Your task to perform on an android device: turn off smart reply in the gmail app Image 0: 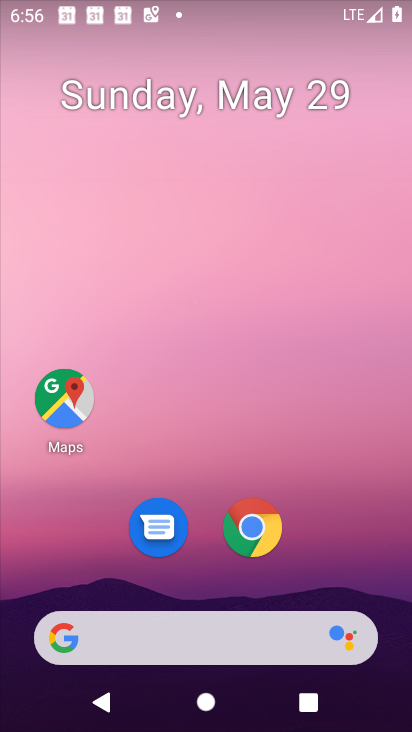
Step 0: drag from (374, 629) to (345, 61)
Your task to perform on an android device: turn off smart reply in the gmail app Image 1: 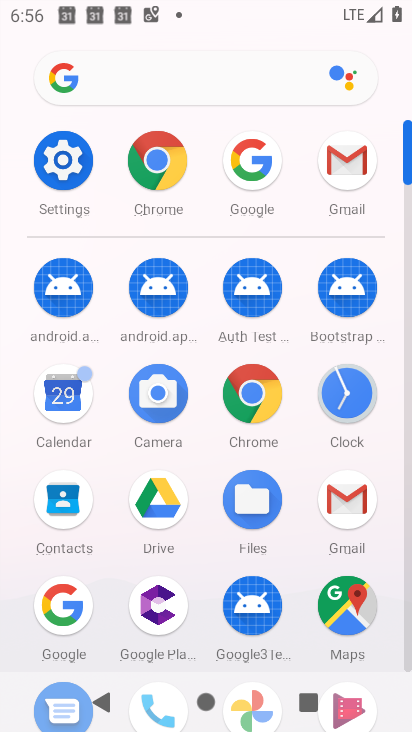
Step 1: click (330, 141)
Your task to perform on an android device: turn off smart reply in the gmail app Image 2: 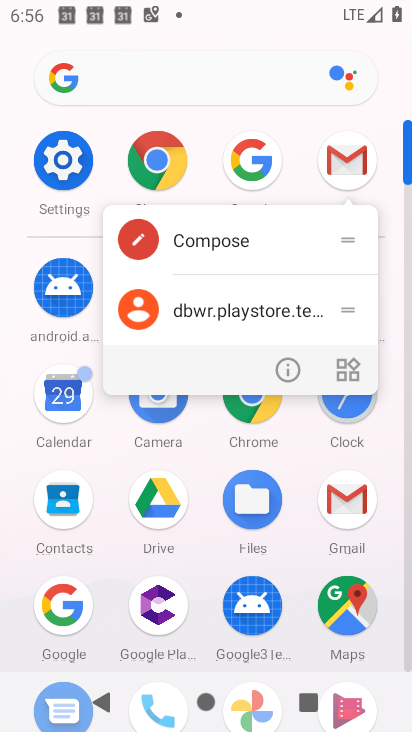
Step 2: click (330, 141)
Your task to perform on an android device: turn off smart reply in the gmail app Image 3: 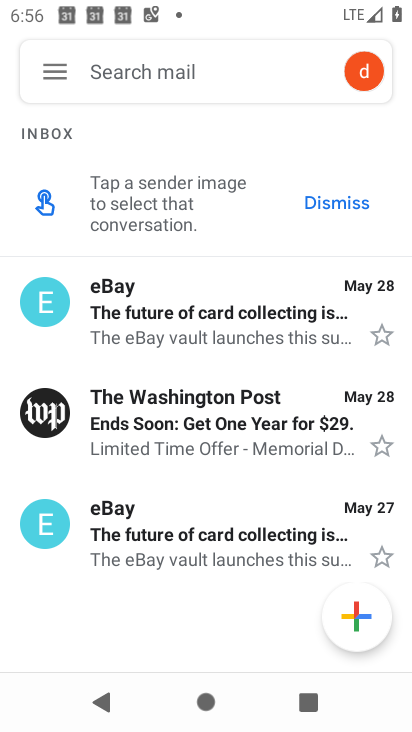
Step 3: click (64, 62)
Your task to perform on an android device: turn off smart reply in the gmail app Image 4: 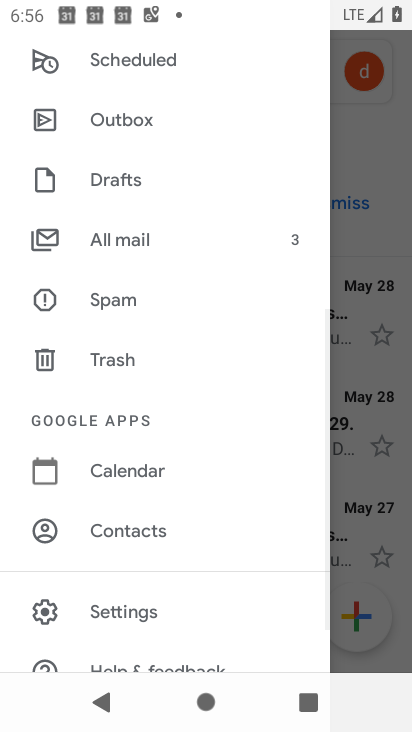
Step 4: click (137, 612)
Your task to perform on an android device: turn off smart reply in the gmail app Image 5: 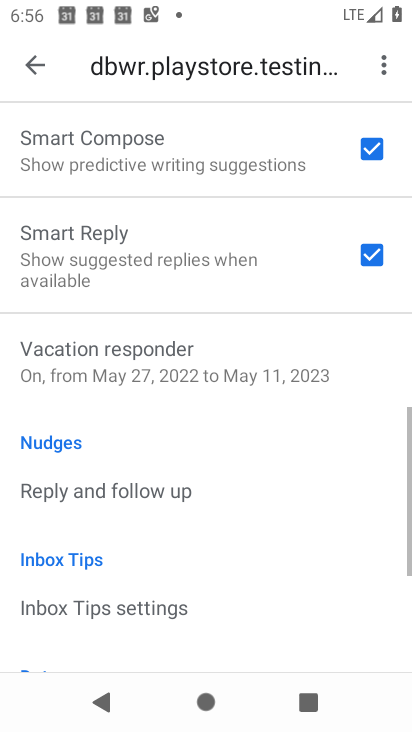
Step 5: drag from (137, 612) to (150, 43)
Your task to perform on an android device: turn off smart reply in the gmail app Image 6: 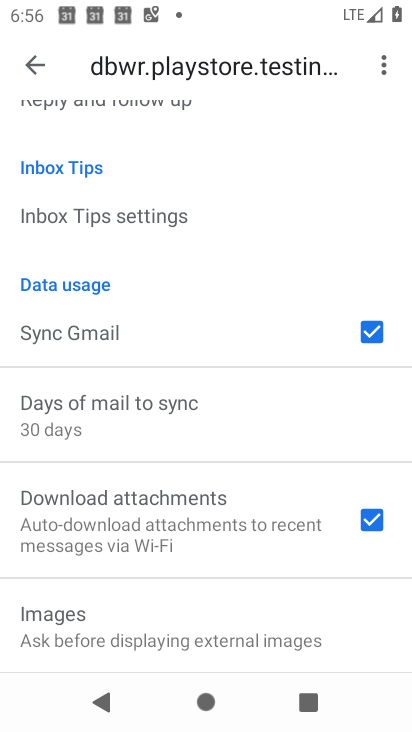
Step 6: drag from (134, 578) to (182, 109)
Your task to perform on an android device: turn off smart reply in the gmail app Image 7: 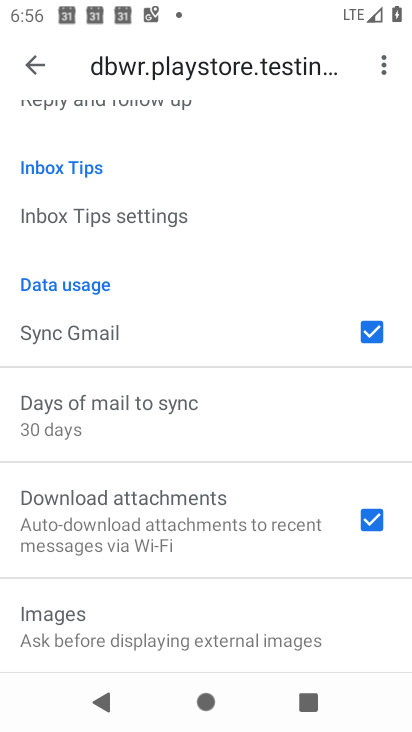
Step 7: drag from (182, 109) to (171, 595)
Your task to perform on an android device: turn off smart reply in the gmail app Image 8: 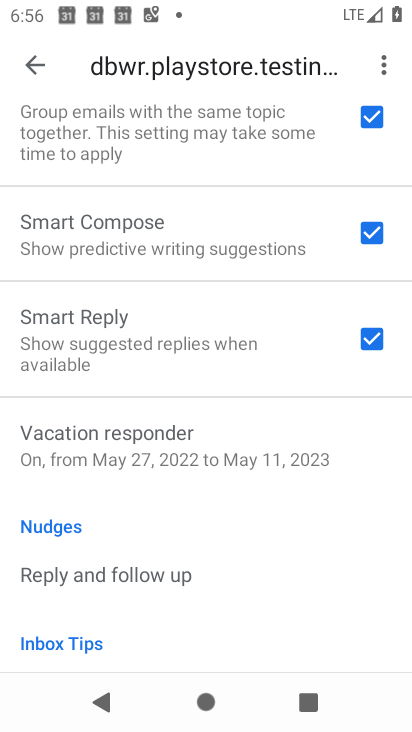
Step 8: click (310, 305)
Your task to perform on an android device: turn off smart reply in the gmail app Image 9: 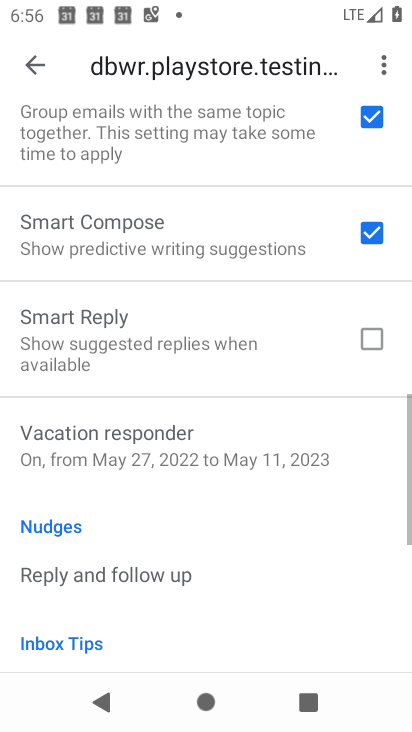
Step 9: task complete